Your task to perform on an android device: see creations saved in the google photos Image 0: 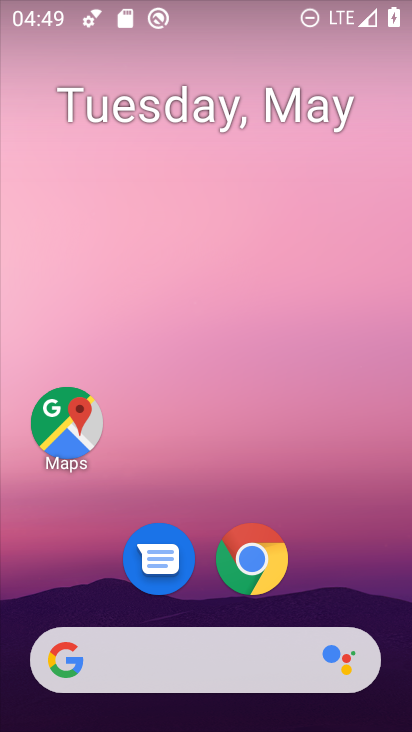
Step 0: drag from (209, 719) to (213, 225)
Your task to perform on an android device: see creations saved in the google photos Image 1: 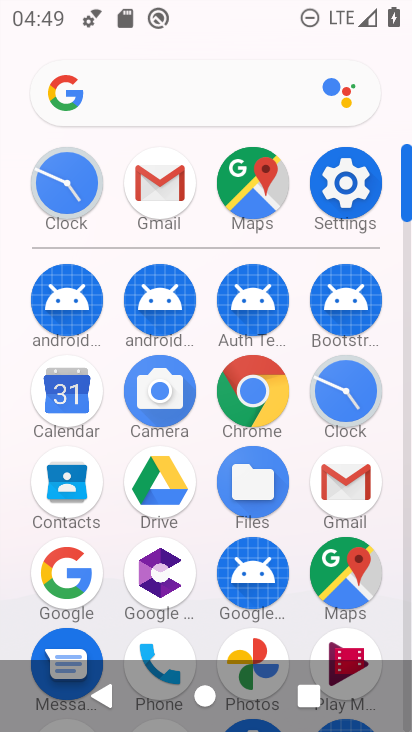
Step 1: click (260, 659)
Your task to perform on an android device: see creations saved in the google photos Image 2: 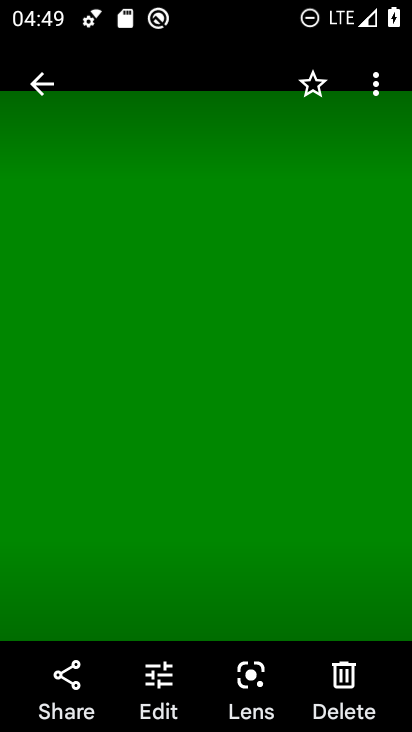
Step 2: click (35, 76)
Your task to perform on an android device: see creations saved in the google photos Image 3: 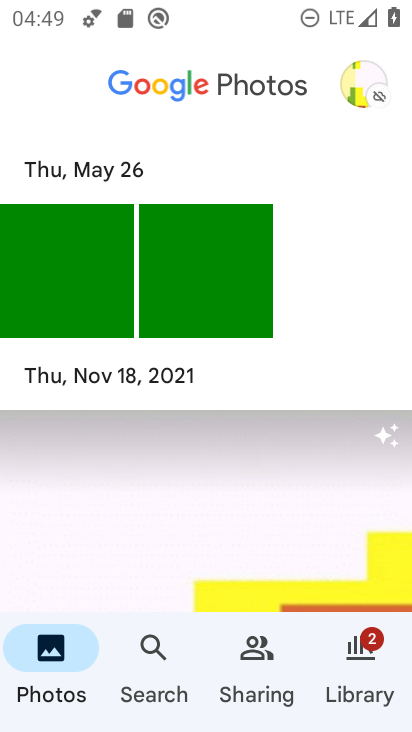
Step 3: click (152, 643)
Your task to perform on an android device: see creations saved in the google photos Image 4: 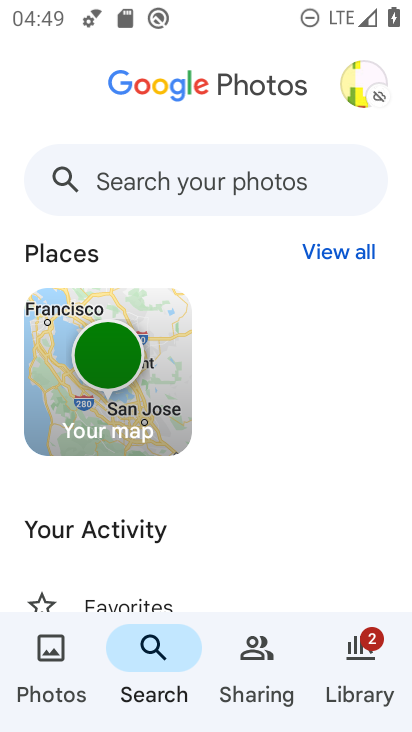
Step 4: drag from (202, 586) to (212, 272)
Your task to perform on an android device: see creations saved in the google photos Image 5: 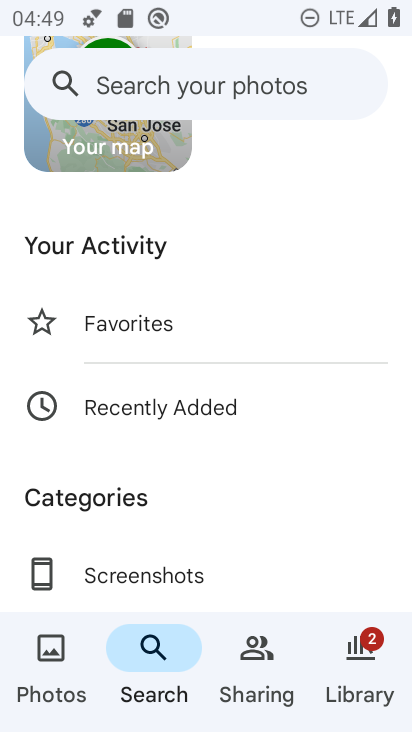
Step 5: drag from (208, 565) to (217, 273)
Your task to perform on an android device: see creations saved in the google photos Image 6: 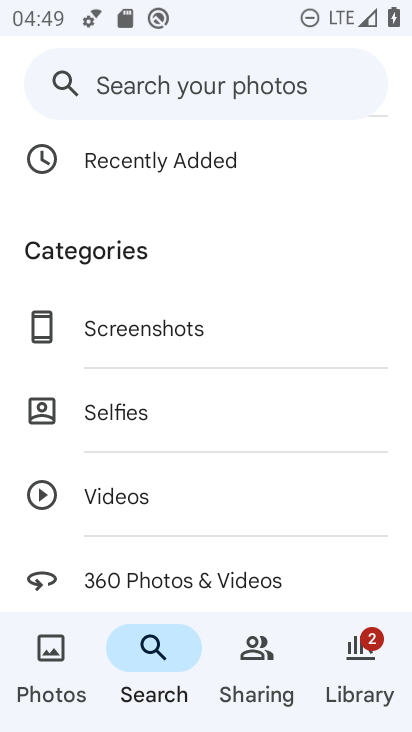
Step 6: drag from (149, 544) to (163, 275)
Your task to perform on an android device: see creations saved in the google photos Image 7: 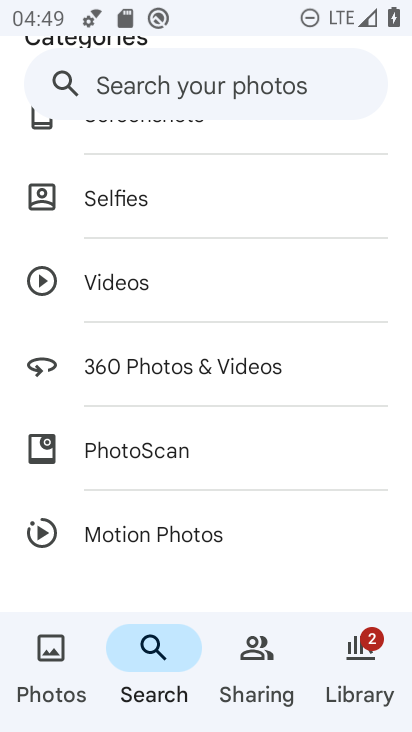
Step 7: drag from (163, 577) to (182, 268)
Your task to perform on an android device: see creations saved in the google photos Image 8: 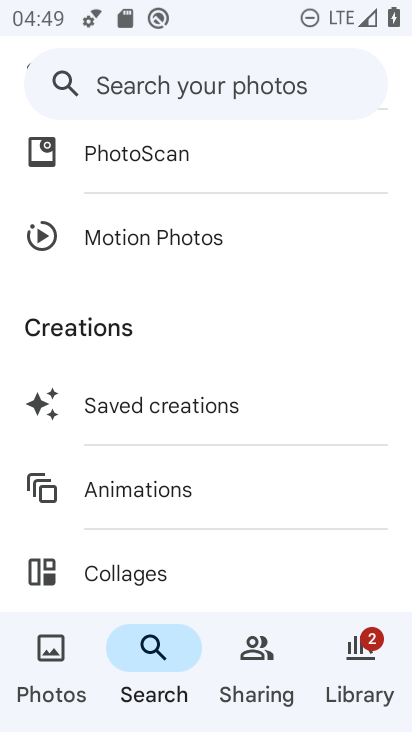
Step 8: click (146, 406)
Your task to perform on an android device: see creations saved in the google photos Image 9: 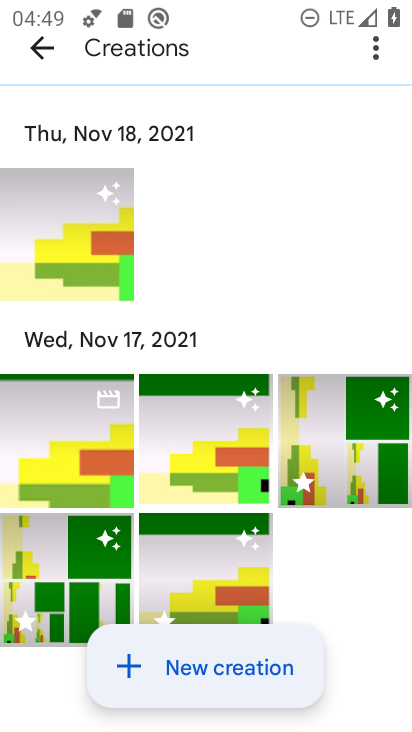
Step 9: task complete